Your task to perform on an android device: turn off javascript in the chrome app Image 0: 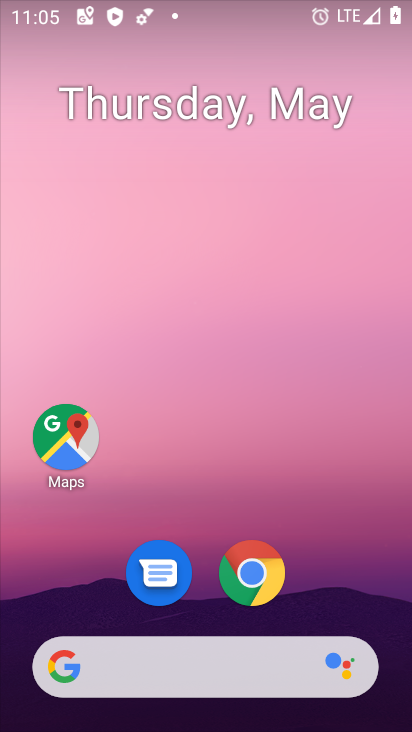
Step 0: click (250, 588)
Your task to perform on an android device: turn off javascript in the chrome app Image 1: 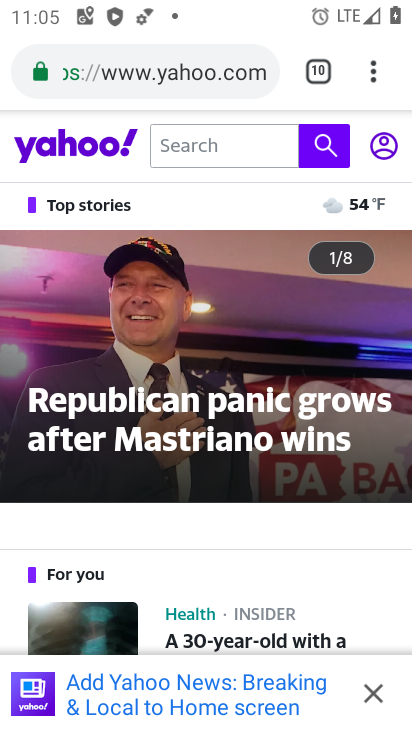
Step 1: drag from (373, 68) to (143, 560)
Your task to perform on an android device: turn off javascript in the chrome app Image 2: 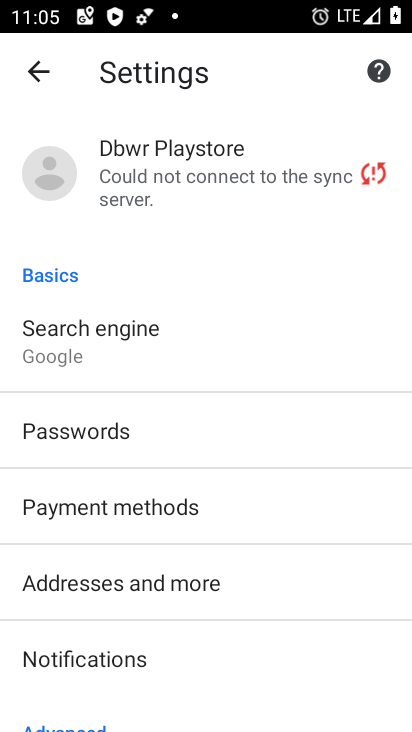
Step 2: drag from (143, 560) to (175, 310)
Your task to perform on an android device: turn off javascript in the chrome app Image 3: 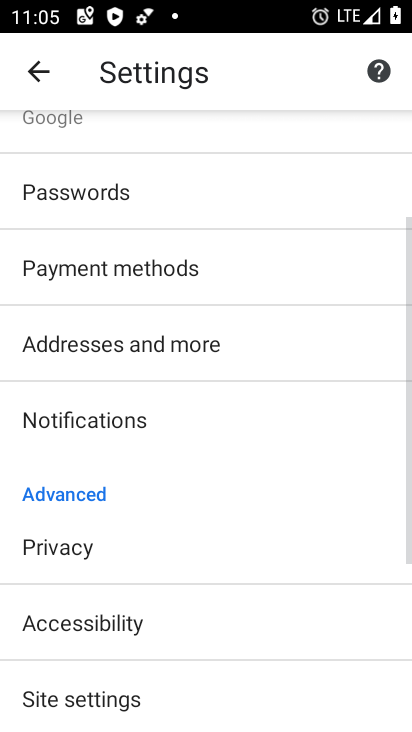
Step 3: drag from (169, 610) to (176, 374)
Your task to perform on an android device: turn off javascript in the chrome app Image 4: 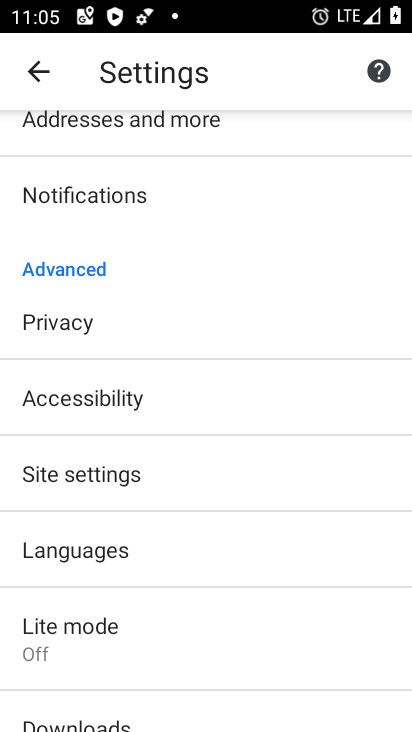
Step 4: click (157, 488)
Your task to perform on an android device: turn off javascript in the chrome app Image 5: 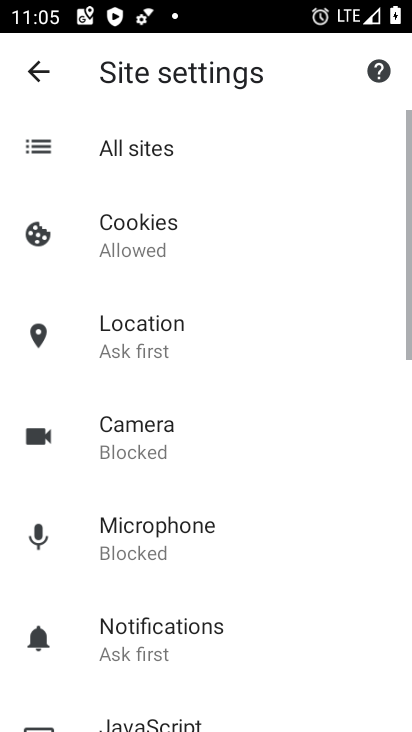
Step 5: drag from (212, 627) to (224, 394)
Your task to perform on an android device: turn off javascript in the chrome app Image 6: 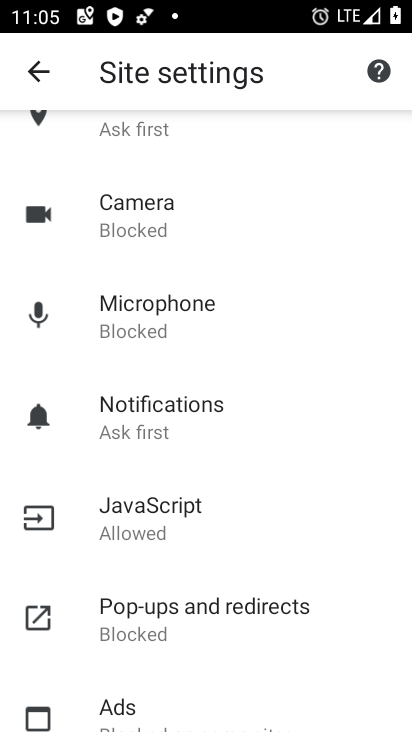
Step 6: click (180, 520)
Your task to perform on an android device: turn off javascript in the chrome app Image 7: 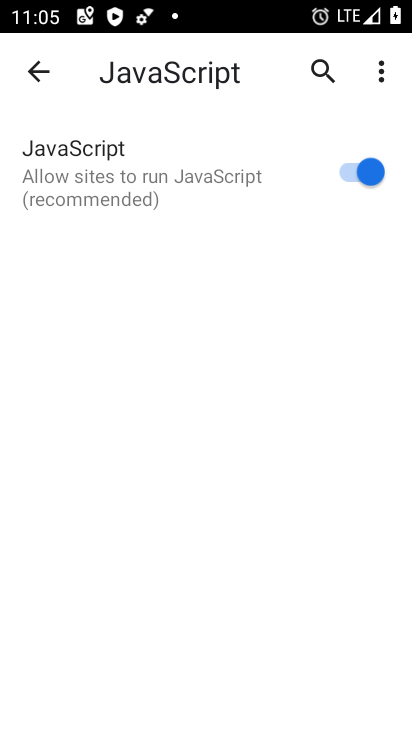
Step 7: click (357, 177)
Your task to perform on an android device: turn off javascript in the chrome app Image 8: 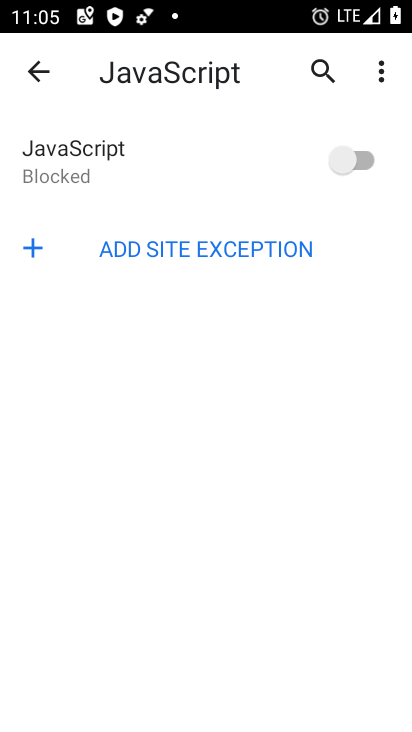
Step 8: task complete